Your task to perform on an android device: turn off notifications in google photos Image 0: 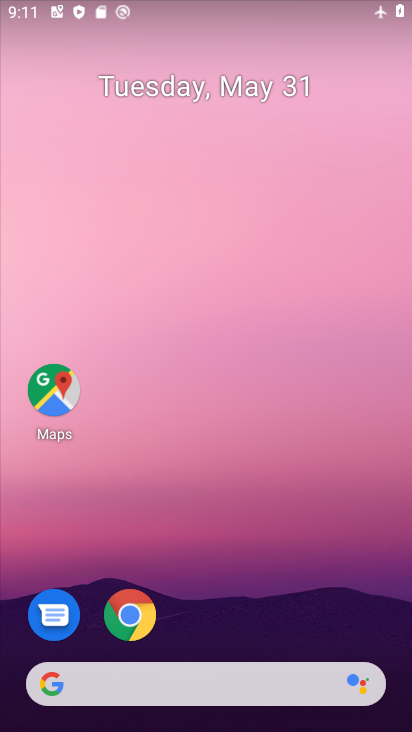
Step 0: drag from (386, 637) to (331, 49)
Your task to perform on an android device: turn off notifications in google photos Image 1: 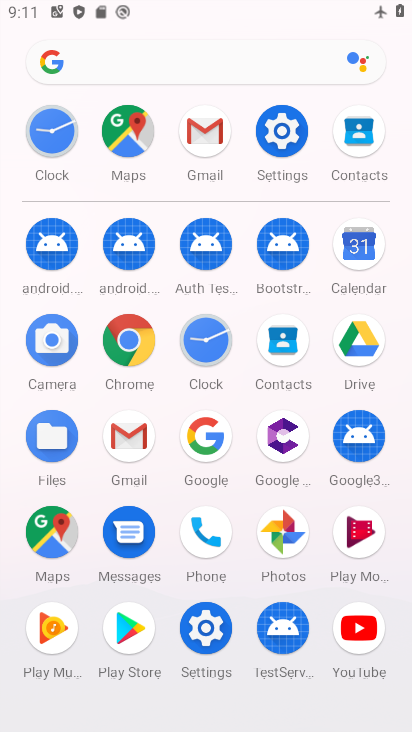
Step 1: click (283, 529)
Your task to perform on an android device: turn off notifications in google photos Image 2: 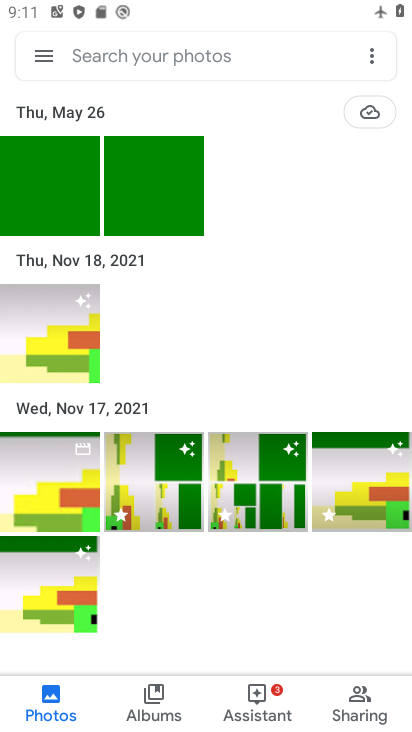
Step 2: click (42, 57)
Your task to perform on an android device: turn off notifications in google photos Image 3: 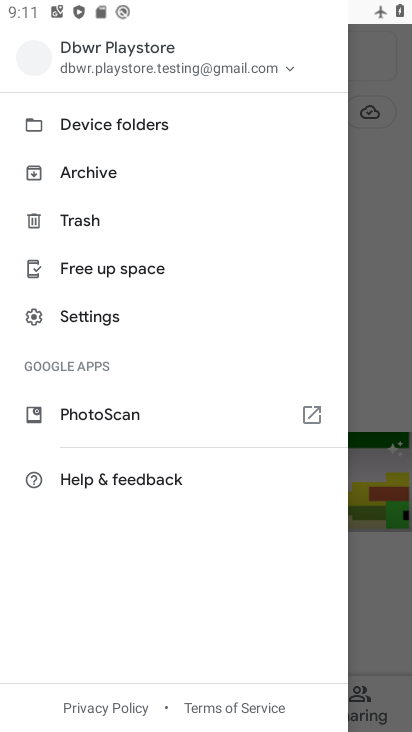
Step 3: click (83, 324)
Your task to perform on an android device: turn off notifications in google photos Image 4: 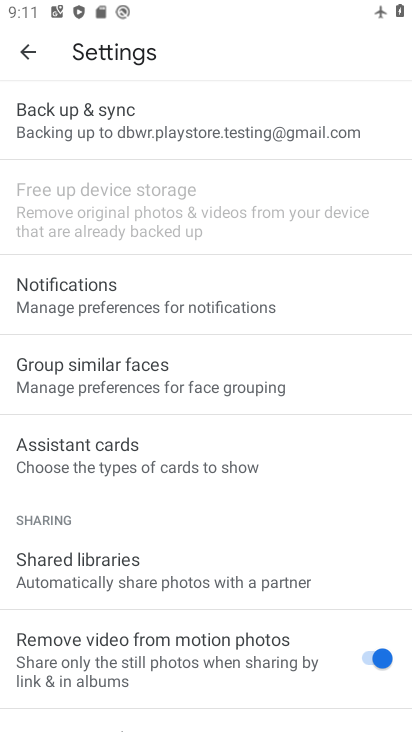
Step 4: click (93, 285)
Your task to perform on an android device: turn off notifications in google photos Image 5: 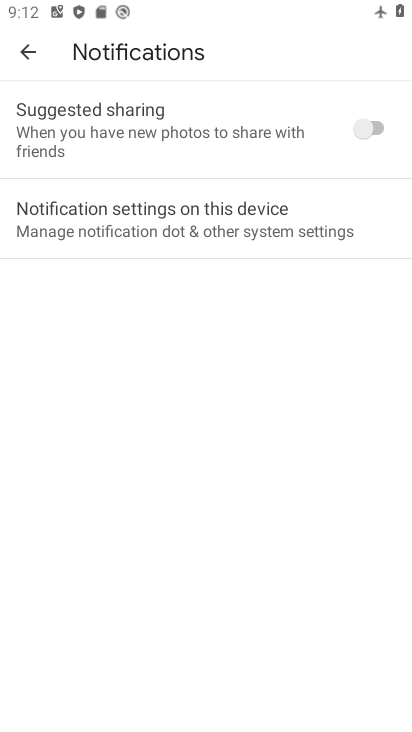
Step 5: click (102, 225)
Your task to perform on an android device: turn off notifications in google photos Image 6: 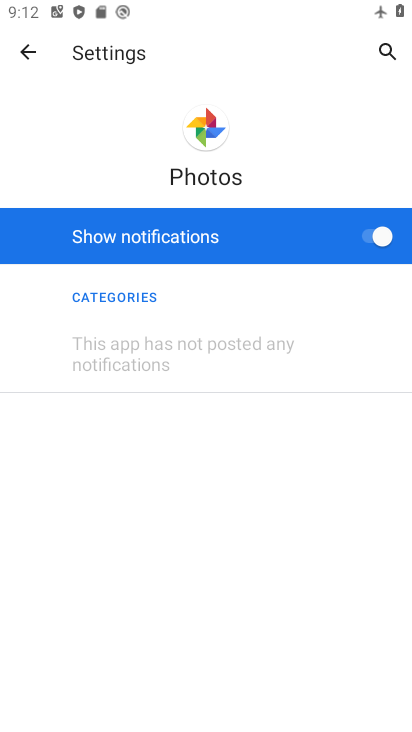
Step 6: drag from (208, 548) to (219, 315)
Your task to perform on an android device: turn off notifications in google photos Image 7: 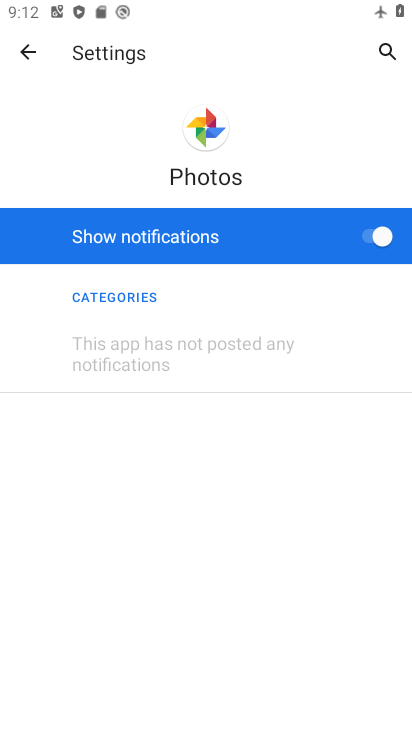
Step 7: click (372, 232)
Your task to perform on an android device: turn off notifications in google photos Image 8: 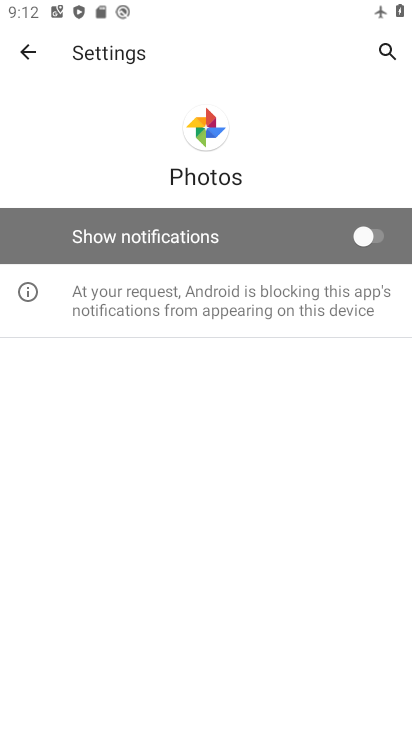
Step 8: task complete